Your task to perform on an android device: change timer sound Image 0: 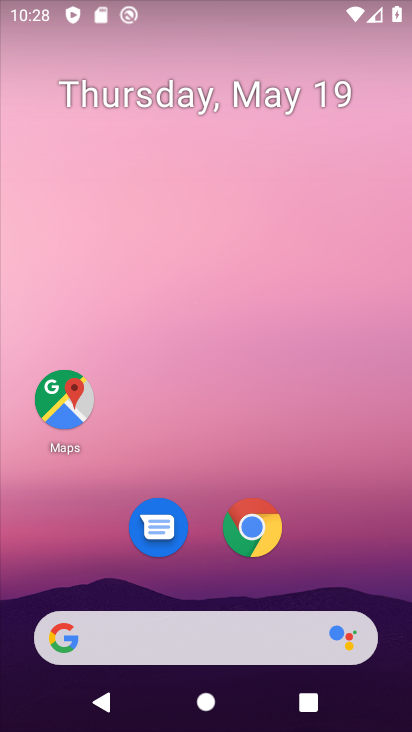
Step 0: drag from (202, 594) to (264, 192)
Your task to perform on an android device: change timer sound Image 1: 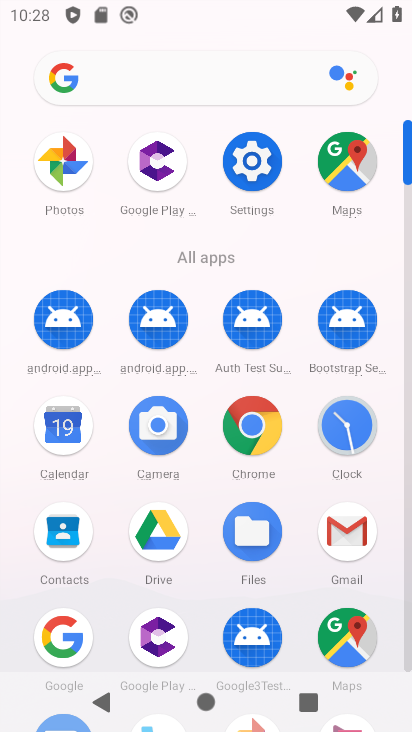
Step 1: click (360, 418)
Your task to perform on an android device: change timer sound Image 2: 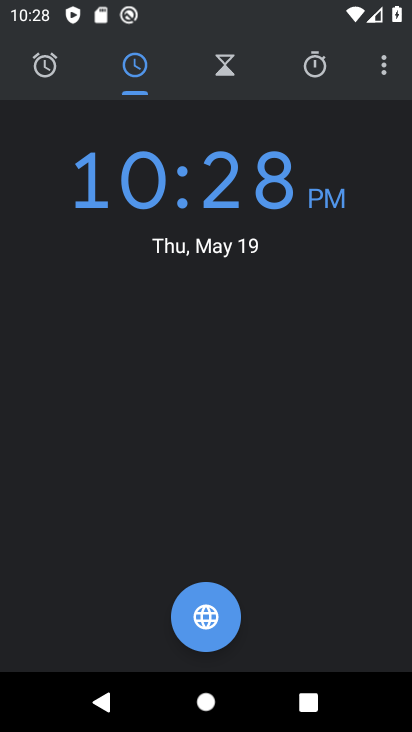
Step 2: click (383, 59)
Your task to perform on an android device: change timer sound Image 3: 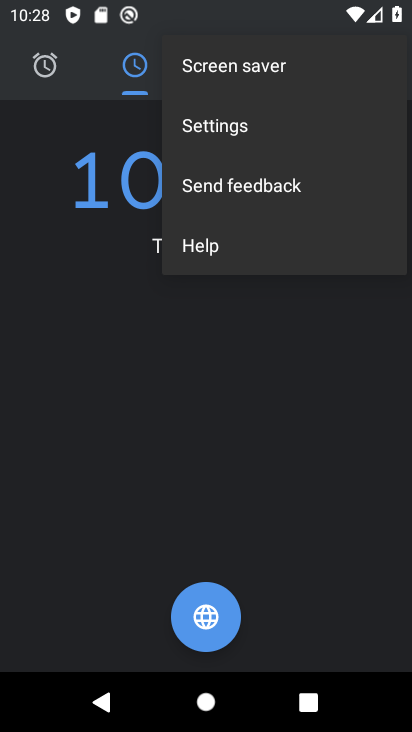
Step 3: click (226, 126)
Your task to perform on an android device: change timer sound Image 4: 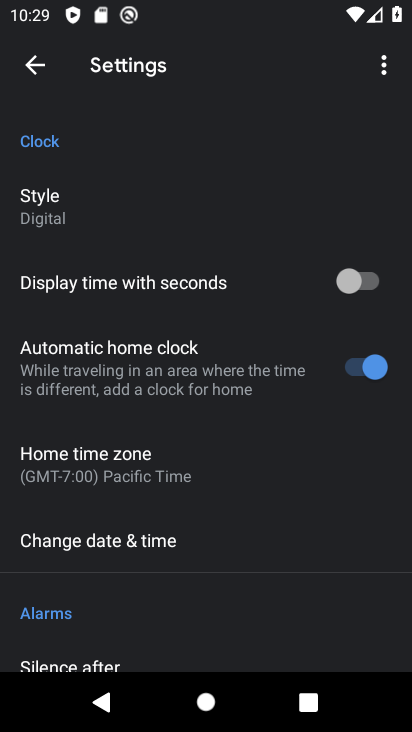
Step 4: drag from (124, 564) to (165, 277)
Your task to perform on an android device: change timer sound Image 5: 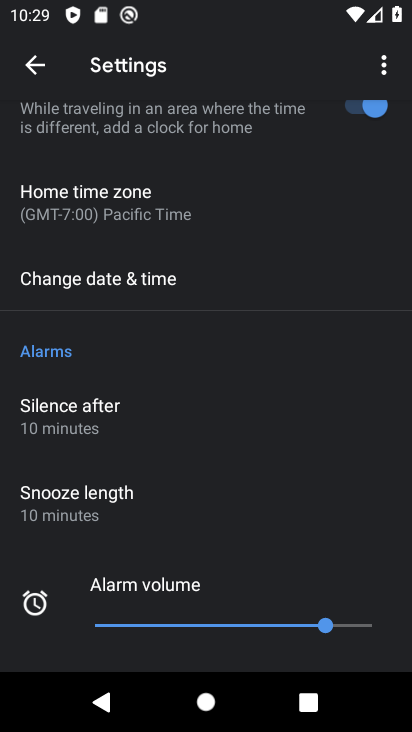
Step 5: drag from (144, 513) to (173, 154)
Your task to perform on an android device: change timer sound Image 6: 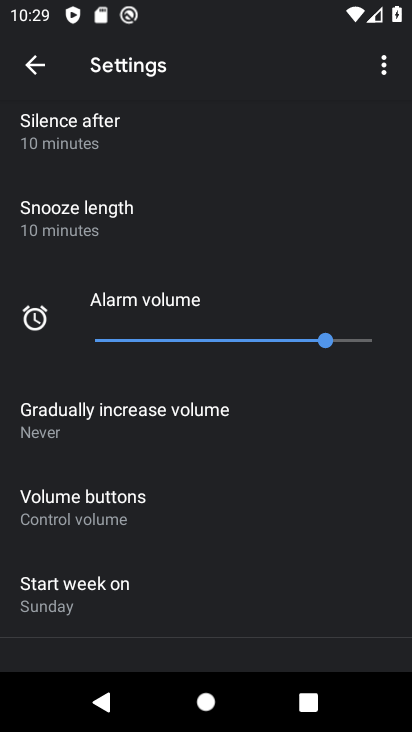
Step 6: drag from (131, 590) to (156, 205)
Your task to perform on an android device: change timer sound Image 7: 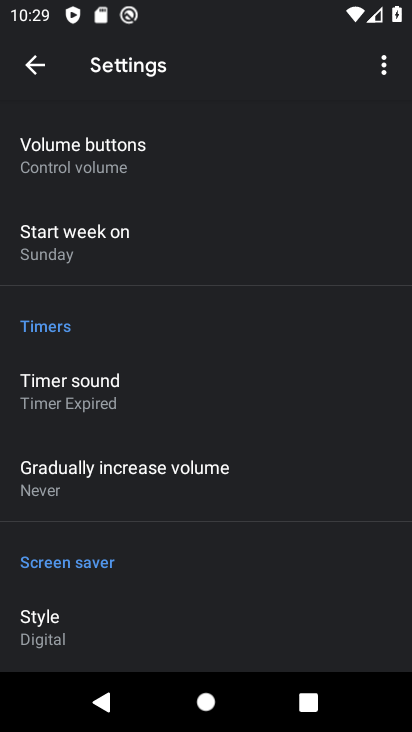
Step 7: click (93, 411)
Your task to perform on an android device: change timer sound Image 8: 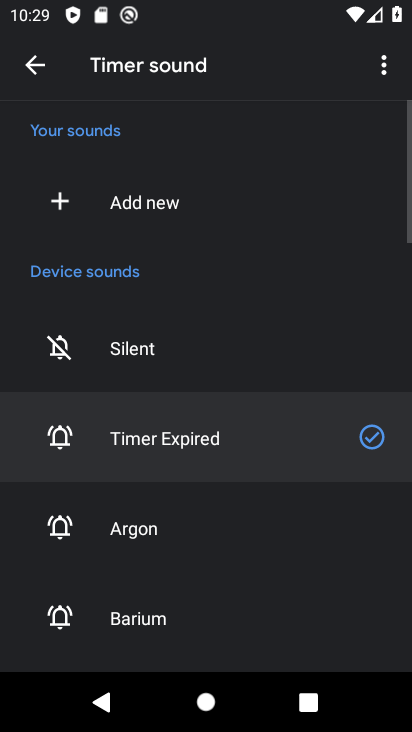
Step 8: click (129, 625)
Your task to perform on an android device: change timer sound Image 9: 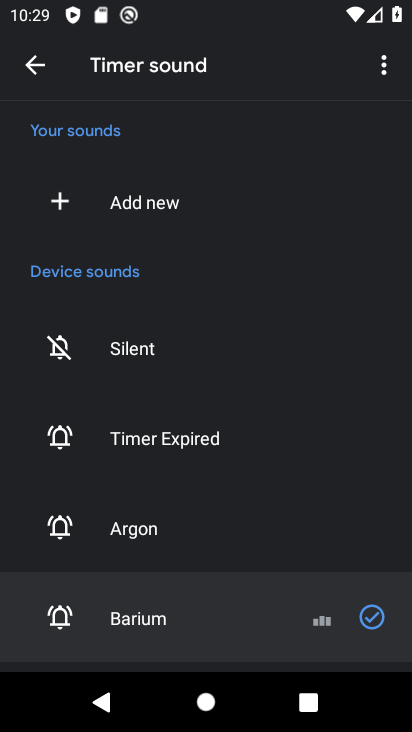
Step 9: task complete